Your task to perform on an android device: snooze an email in the gmail app Image 0: 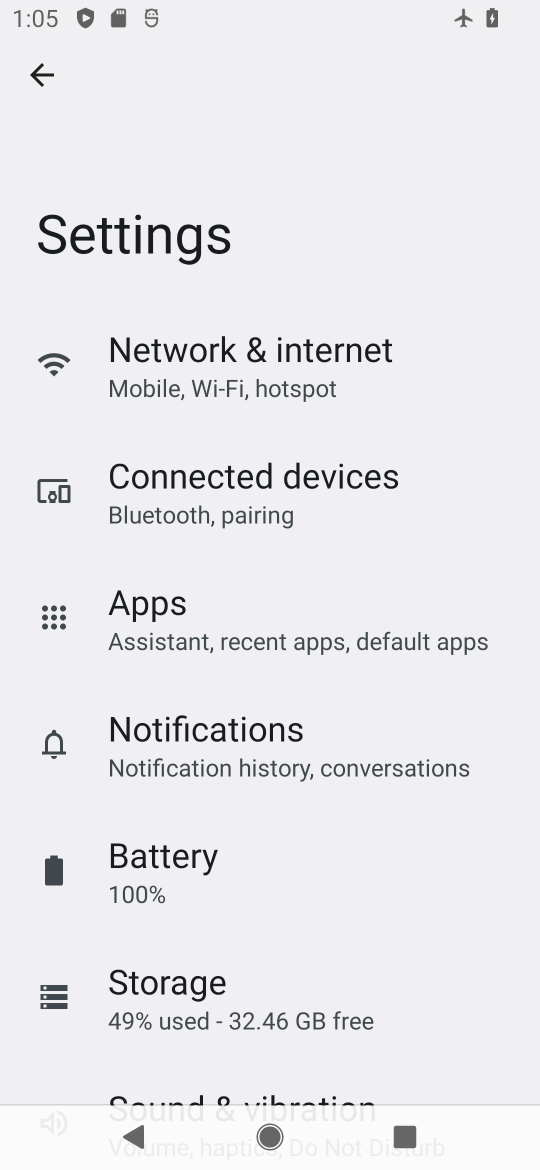
Step 0: press back button
Your task to perform on an android device: snooze an email in the gmail app Image 1: 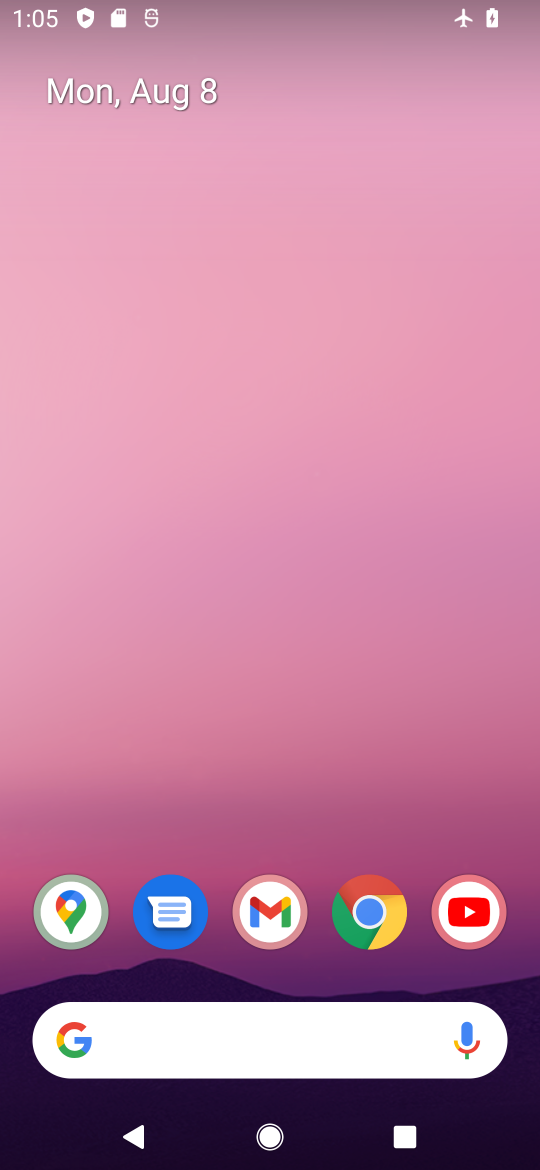
Step 1: click (258, 922)
Your task to perform on an android device: snooze an email in the gmail app Image 2: 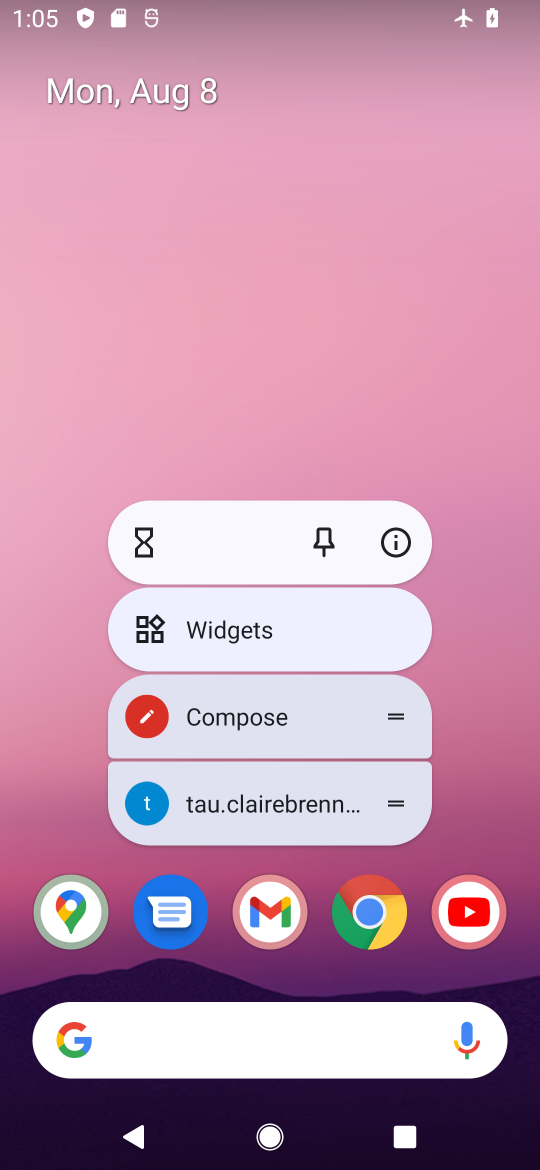
Step 2: click (270, 916)
Your task to perform on an android device: snooze an email in the gmail app Image 3: 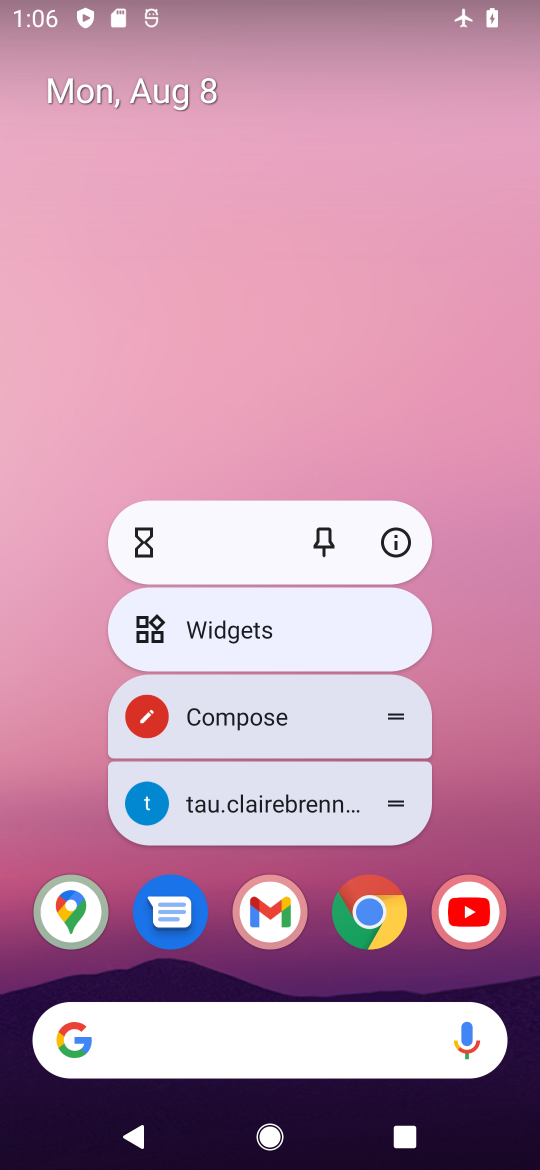
Step 3: click (274, 910)
Your task to perform on an android device: snooze an email in the gmail app Image 4: 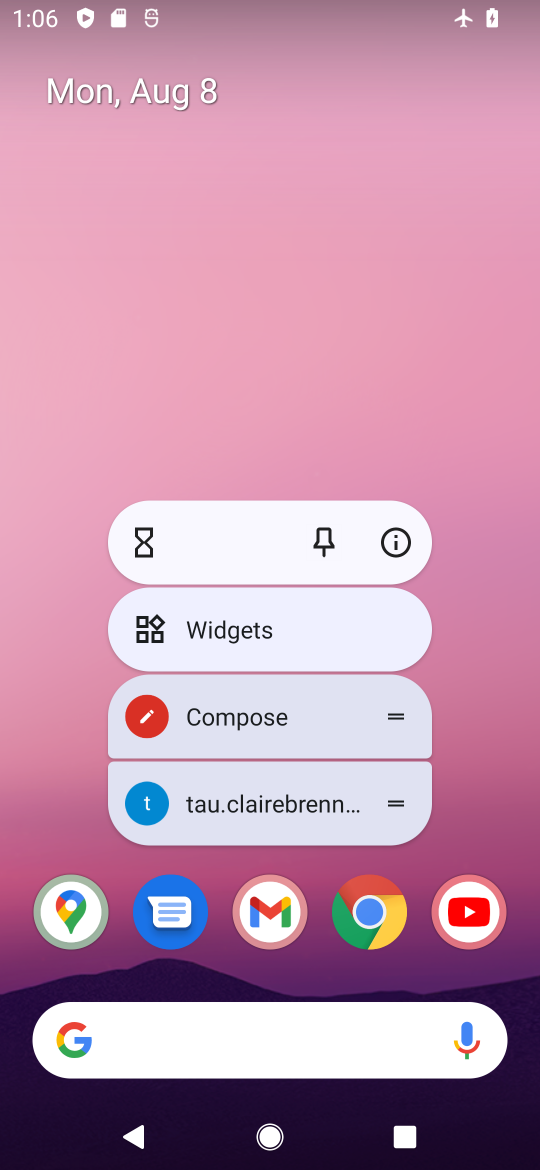
Step 4: click (272, 904)
Your task to perform on an android device: snooze an email in the gmail app Image 5: 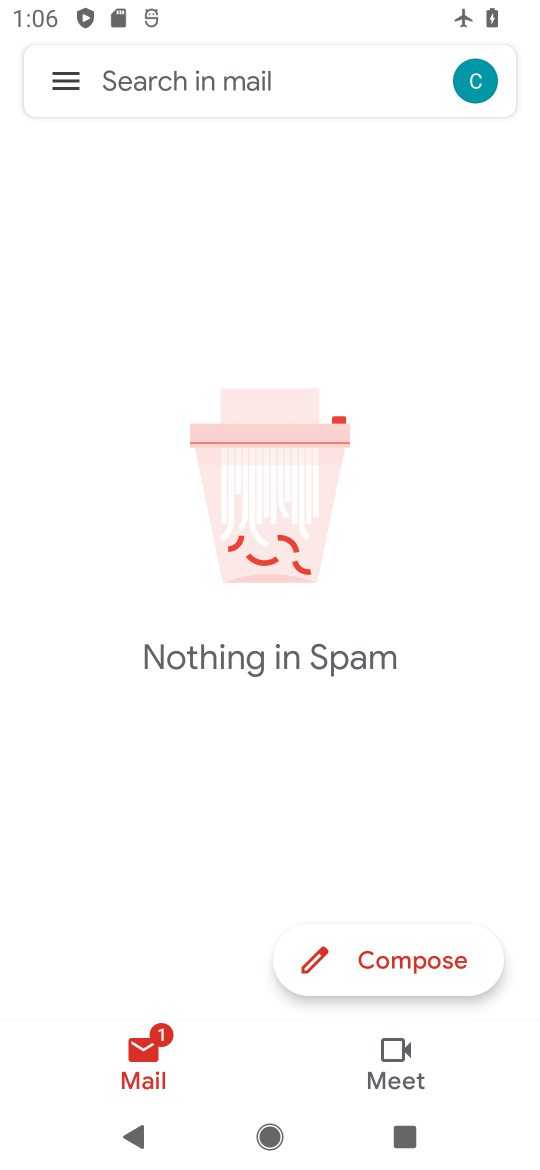
Step 5: click (75, 74)
Your task to perform on an android device: snooze an email in the gmail app Image 6: 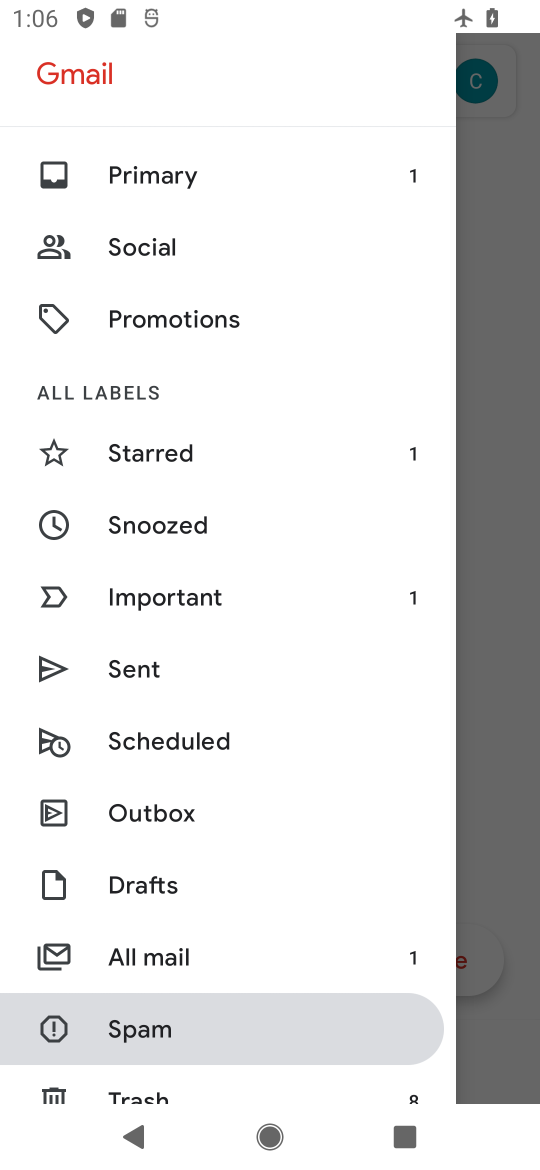
Step 6: click (185, 956)
Your task to perform on an android device: snooze an email in the gmail app Image 7: 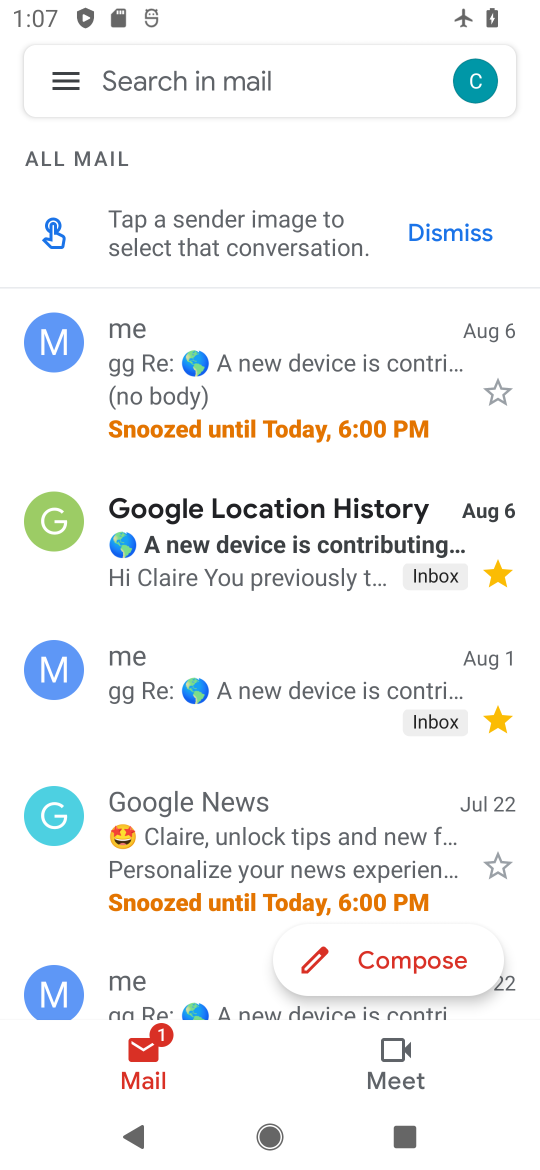
Step 7: click (253, 522)
Your task to perform on an android device: snooze an email in the gmail app Image 8: 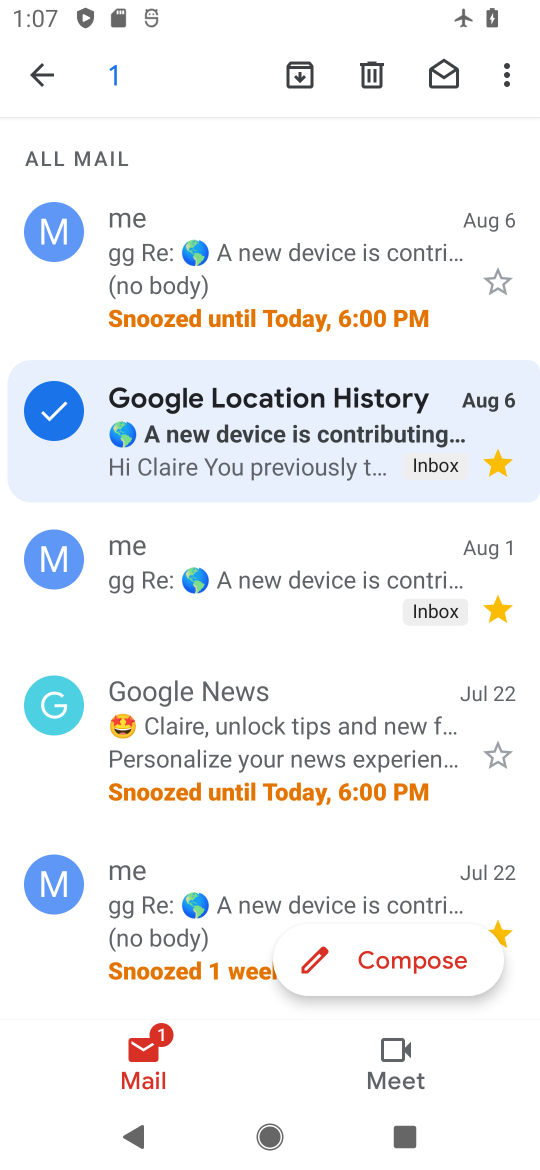
Step 8: click (509, 67)
Your task to perform on an android device: snooze an email in the gmail app Image 9: 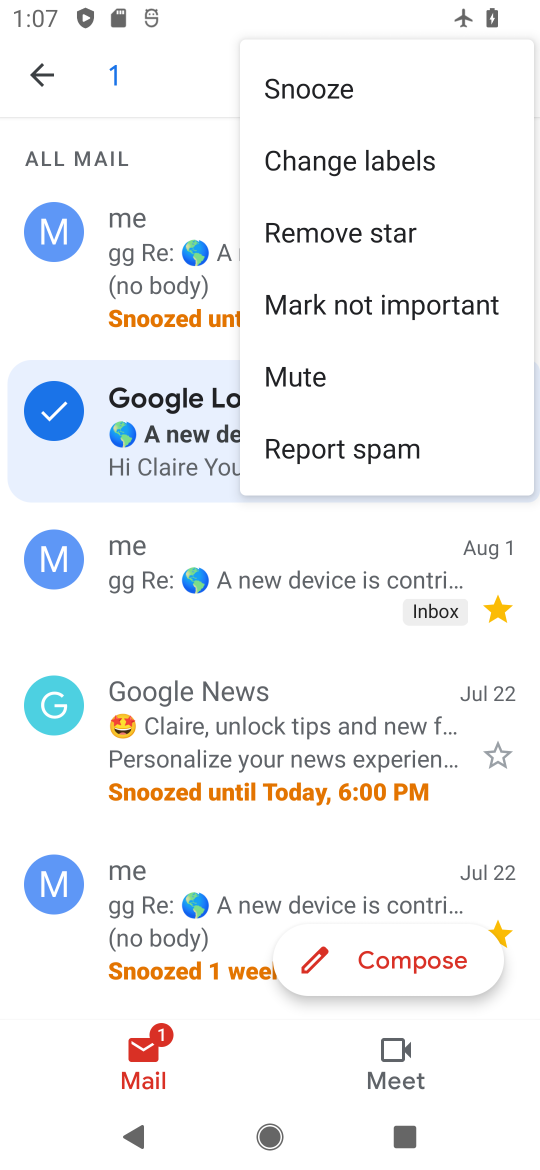
Step 9: click (355, 96)
Your task to perform on an android device: snooze an email in the gmail app Image 10: 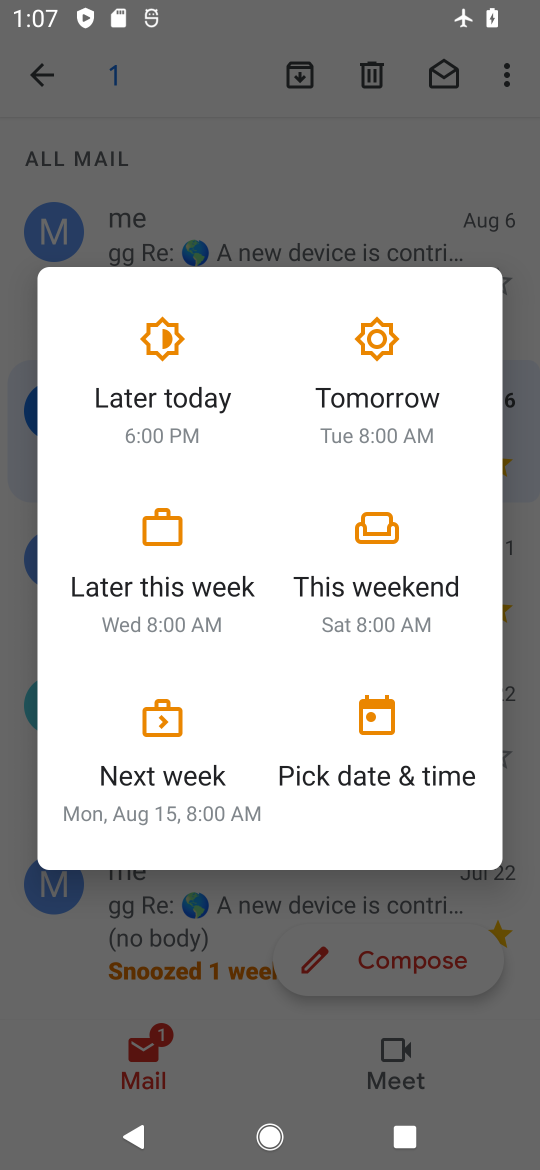
Step 10: click (345, 406)
Your task to perform on an android device: snooze an email in the gmail app Image 11: 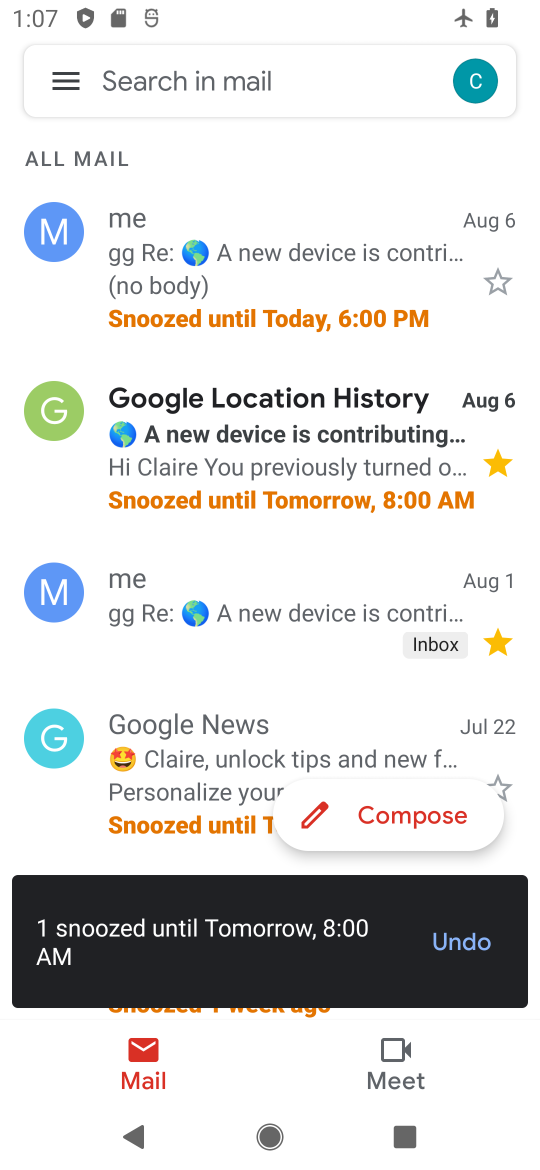
Step 11: task complete